Your task to perform on an android device: Turn on the flashlight Image 0: 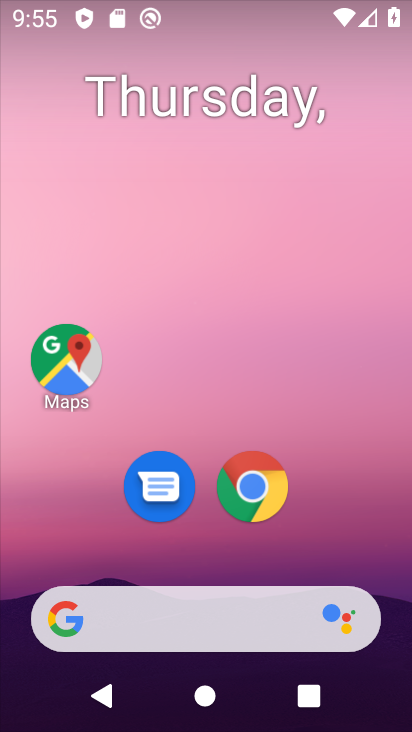
Step 0: drag from (147, 601) to (232, 25)
Your task to perform on an android device: Turn on the flashlight Image 1: 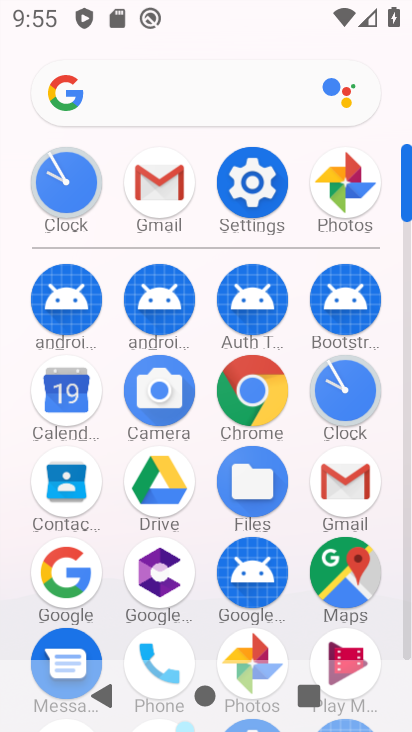
Step 1: click (250, 185)
Your task to perform on an android device: Turn on the flashlight Image 2: 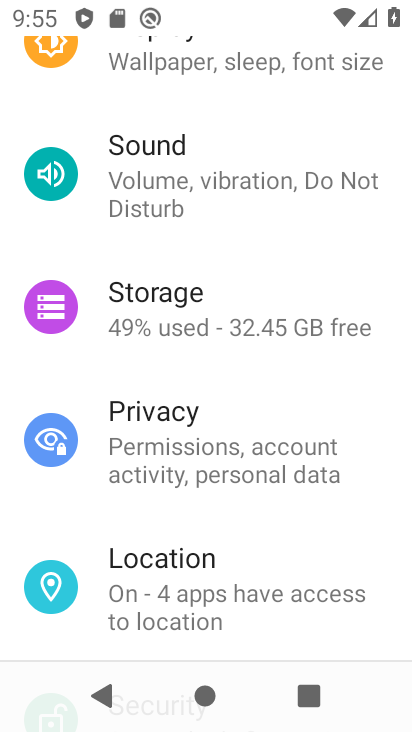
Step 2: drag from (220, 137) to (148, 689)
Your task to perform on an android device: Turn on the flashlight Image 3: 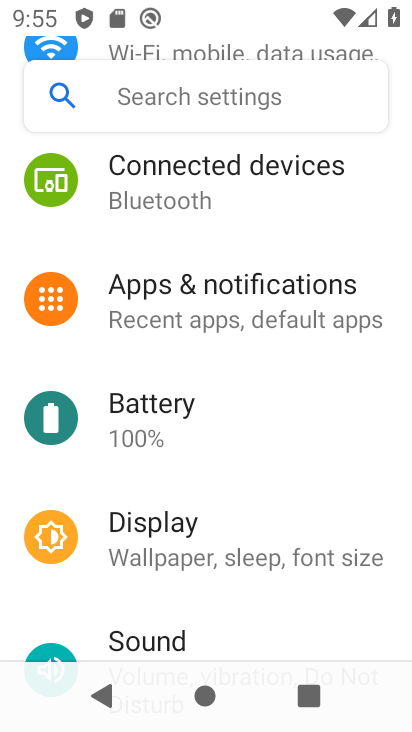
Step 3: click (133, 95)
Your task to perform on an android device: Turn on the flashlight Image 4: 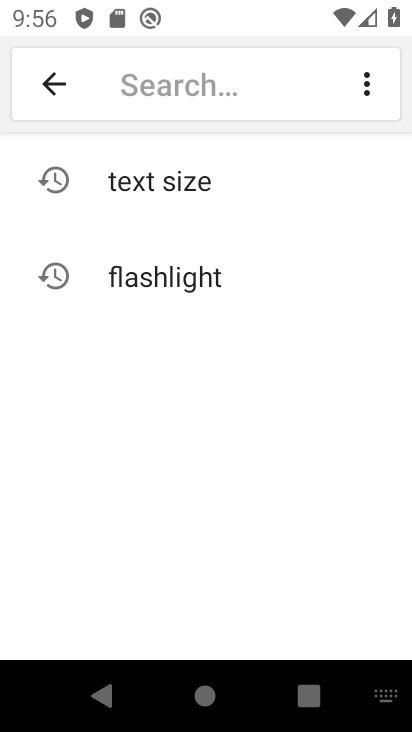
Step 4: type "flashlight"
Your task to perform on an android device: Turn on the flashlight Image 5: 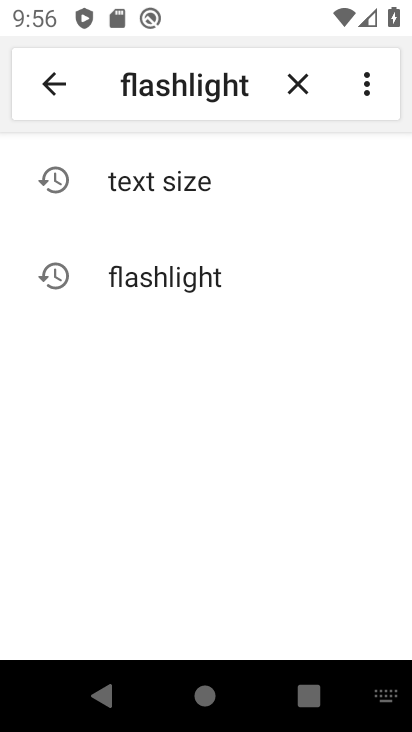
Step 5: click (155, 265)
Your task to perform on an android device: Turn on the flashlight Image 6: 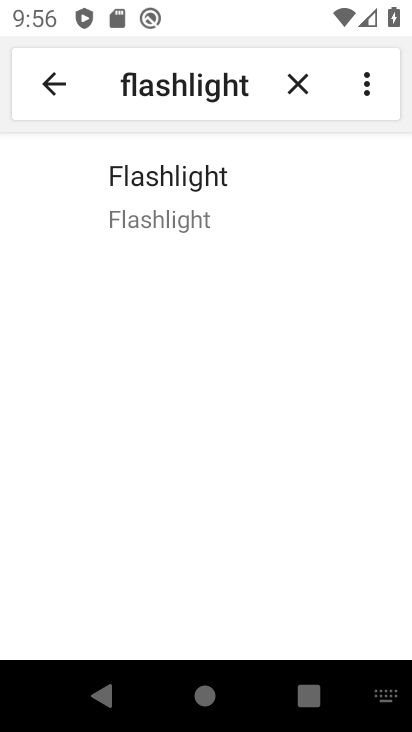
Step 6: click (176, 194)
Your task to perform on an android device: Turn on the flashlight Image 7: 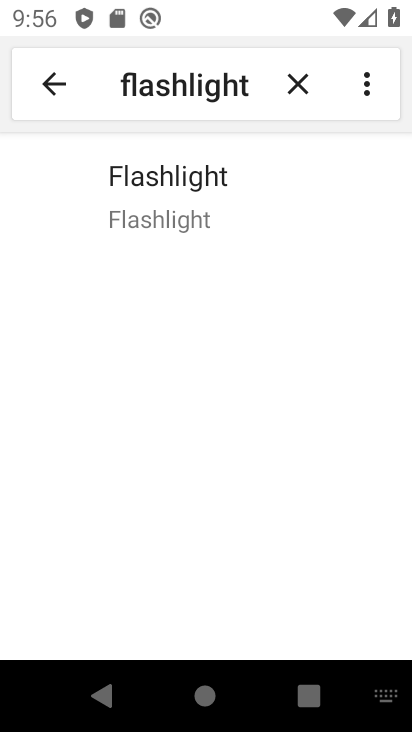
Step 7: click (150, 182)
Your task to perform on an android device: Turn on the flashlight Image 8: 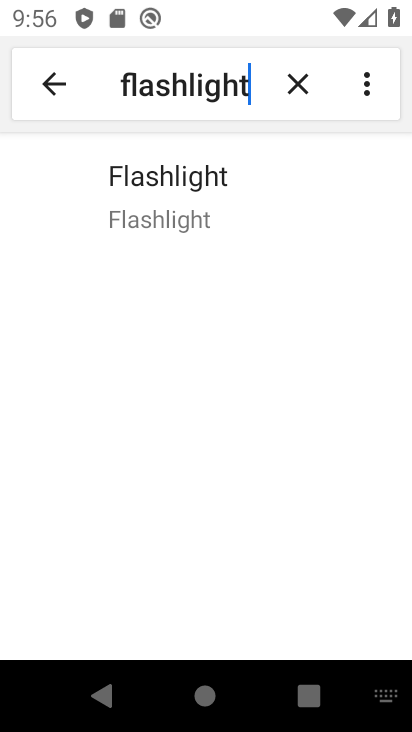
Step 8: task complete